Your task to perform on an android device: Check the weather Image 0: 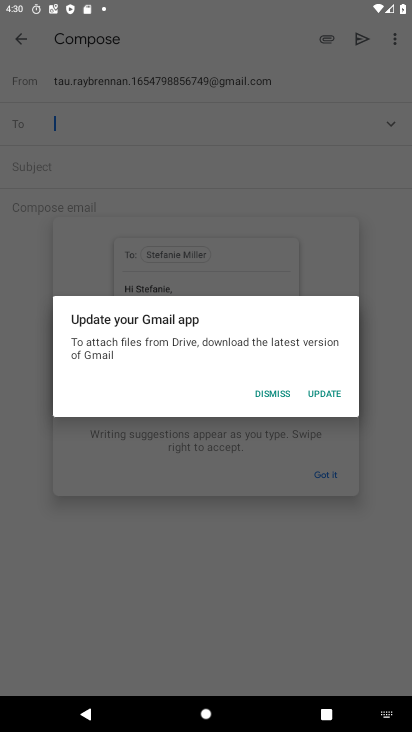
Step 0: press home button
Your task to perform on an android device: Check the weather Image 1: 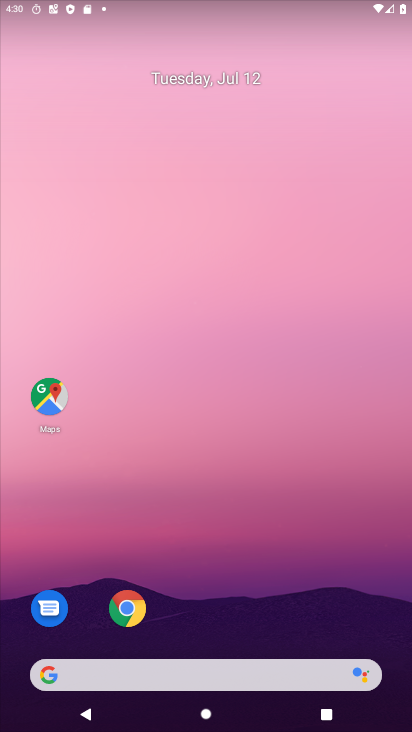
Step 1: drag from (215, 630) to (160, 92)
Your task to perform on an android device: Check the weather Image 2: 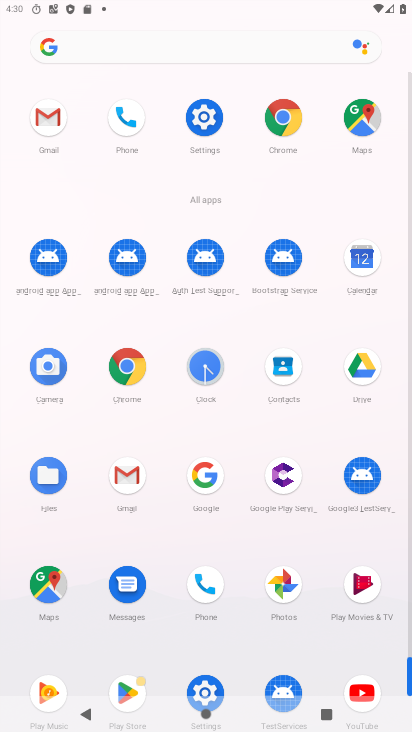
Step 2: click (290, 118)
Your task to perform on an android device: Check the weather Image 3: 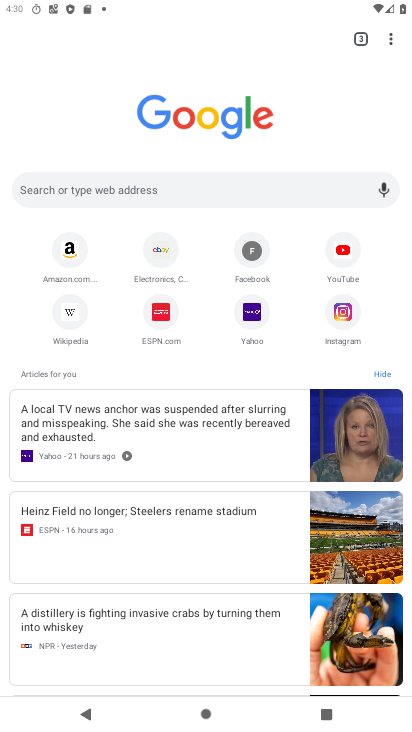
Step 3: click (269, 192)
Your task to perform on an android device: Check the weather Image 4: 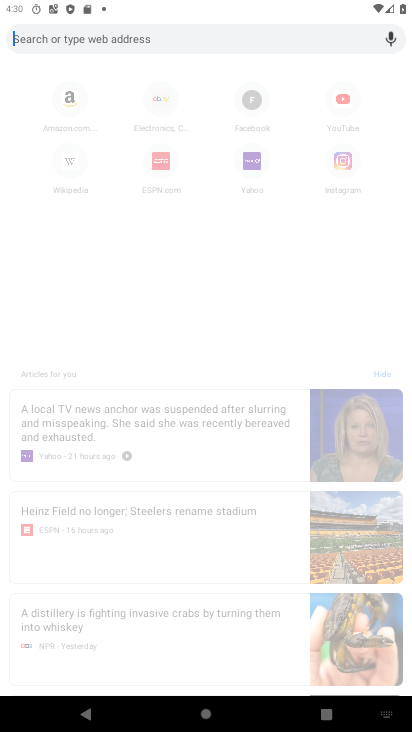
Step 4: type "weather"
Your task to perform on an android device: Check the weather Image 5: 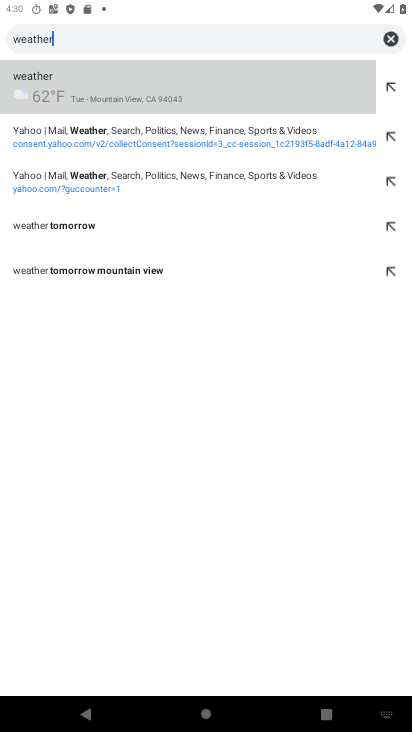
Step 5: click (249, 76)
Your task to perform on an android device: Check the weather Image 6: 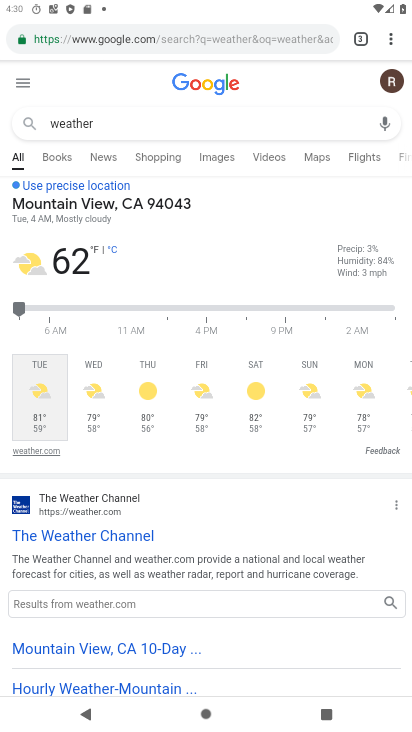
Step 6: task complete